Your task to perform on an android device: toggle pop-ups in chrome Image 0: 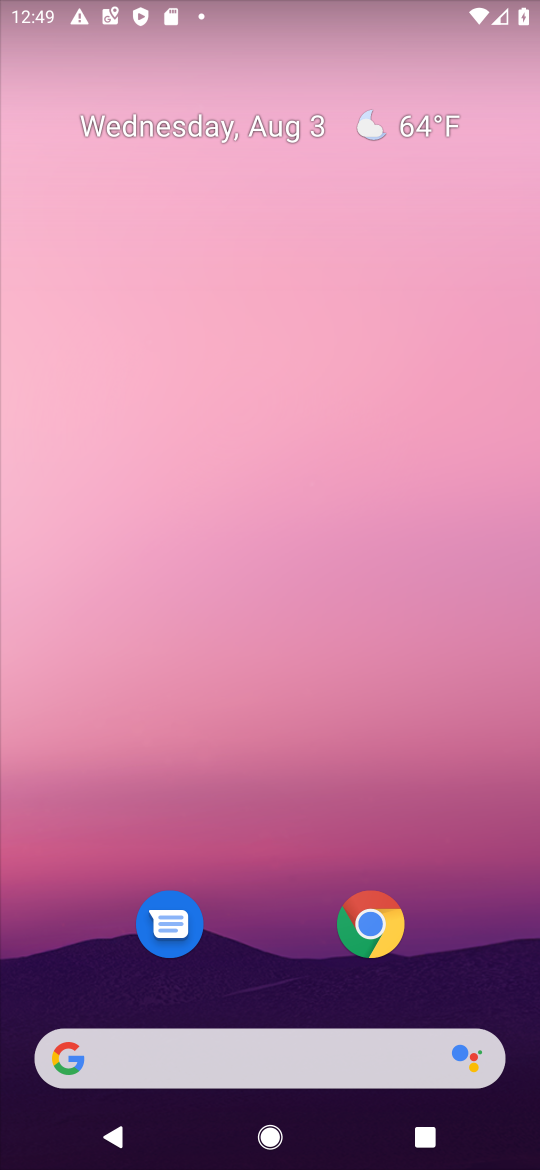
Step 0: click (388, 936)
Your task to perform on an android device: toggle pop-ups in chrome Image 1: 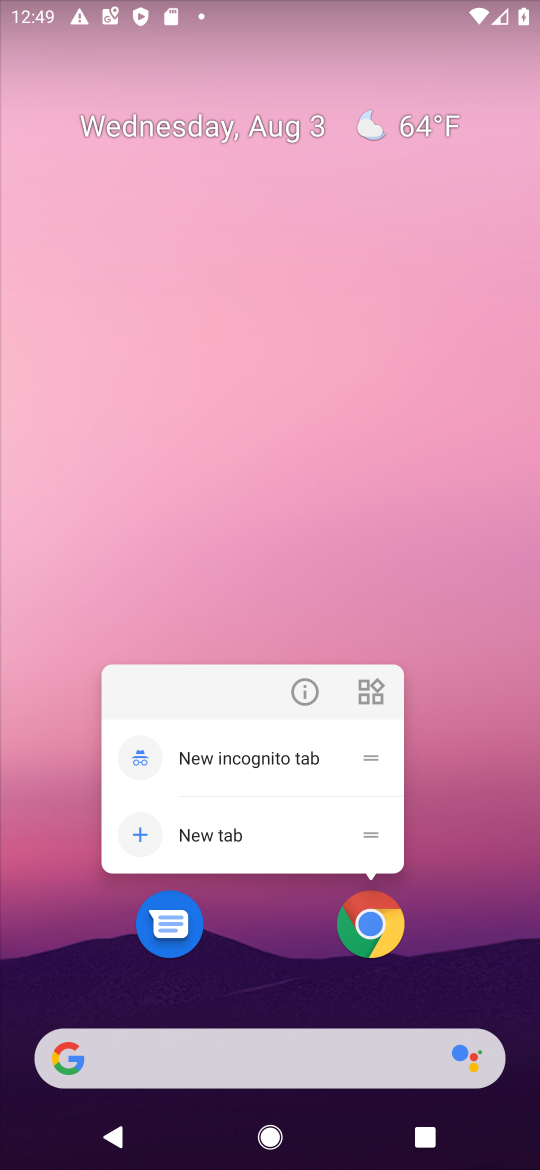
Step 1: click (390, 934)
Your task to perform on an android device: toggle pop-ups in chrome Image 2: 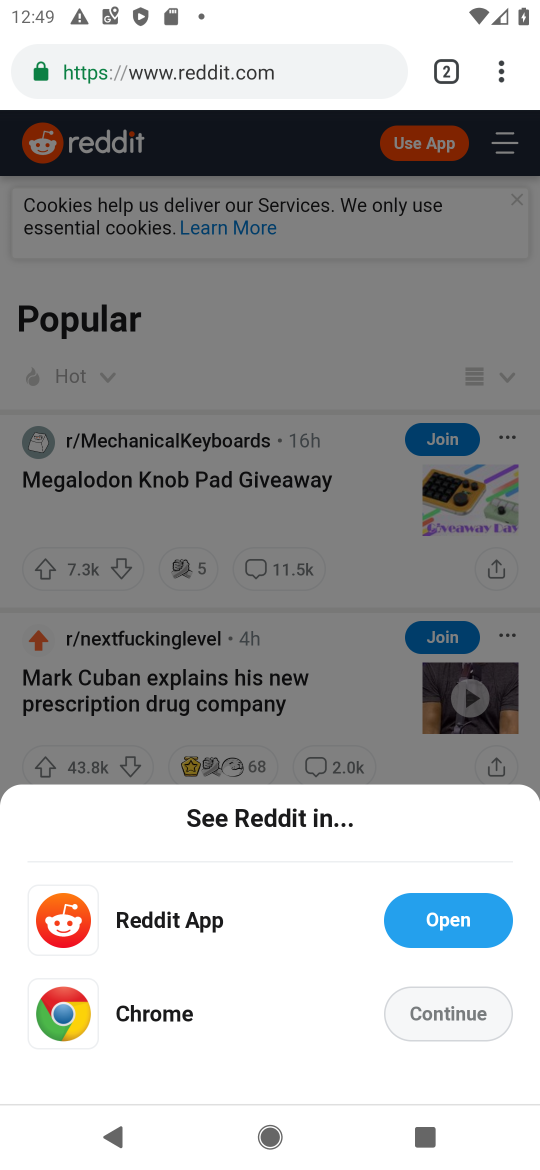
Step 2: drag from (508, 67) to (269, 862)
Your task to perform on an android device: toggle pop-ups in chrome Image 3: 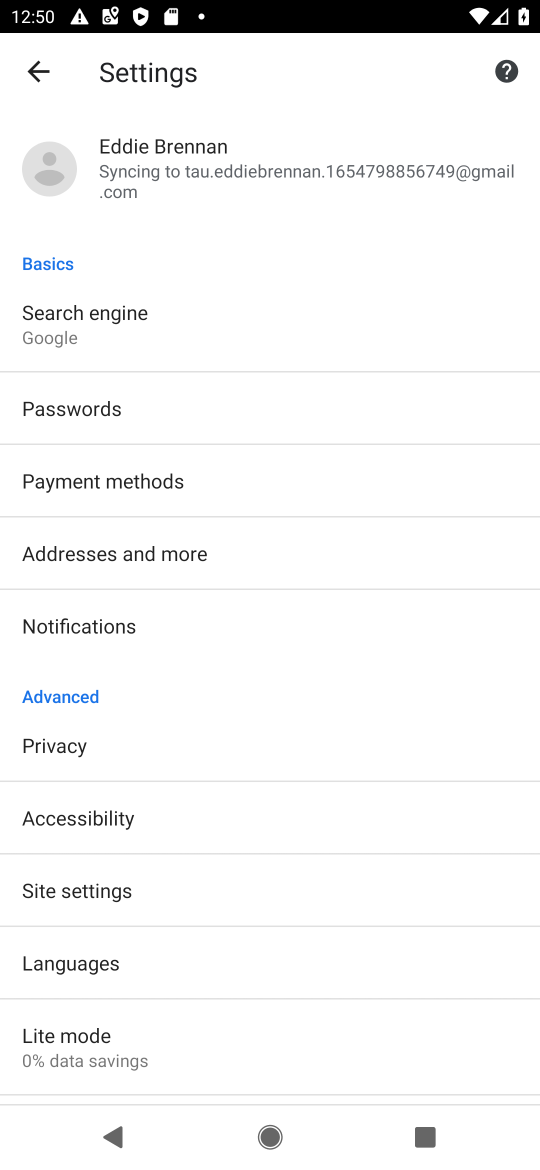
Step 3: click (42, 887)
Your task to perform on an android device: toggle pop-ups in chrome Image 4: 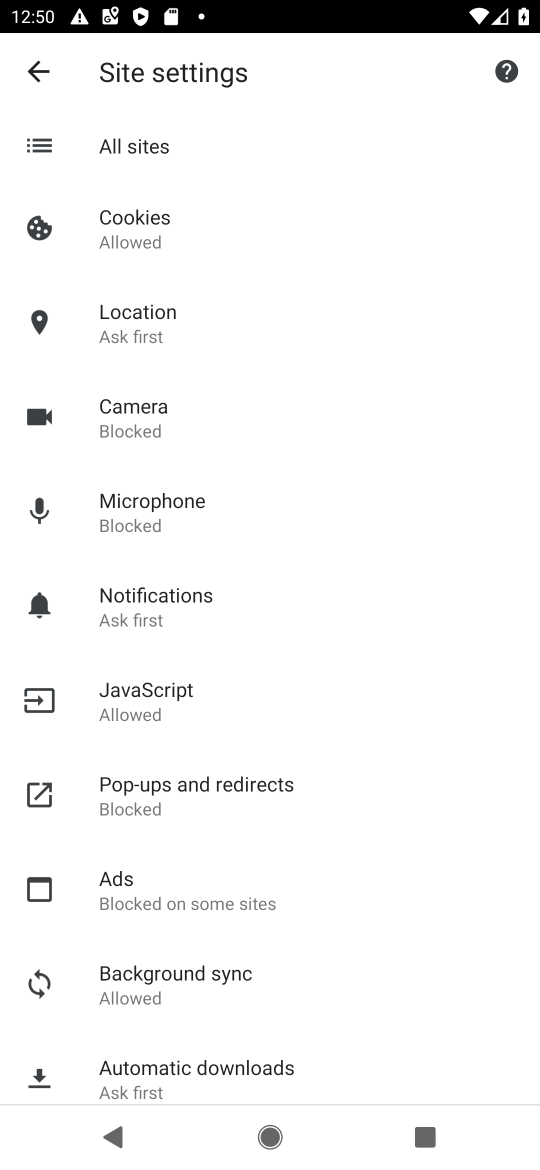
Step 4: click (107, 812)
Your task to perform on an android device: toggle pop-ups in chrome Image 5: 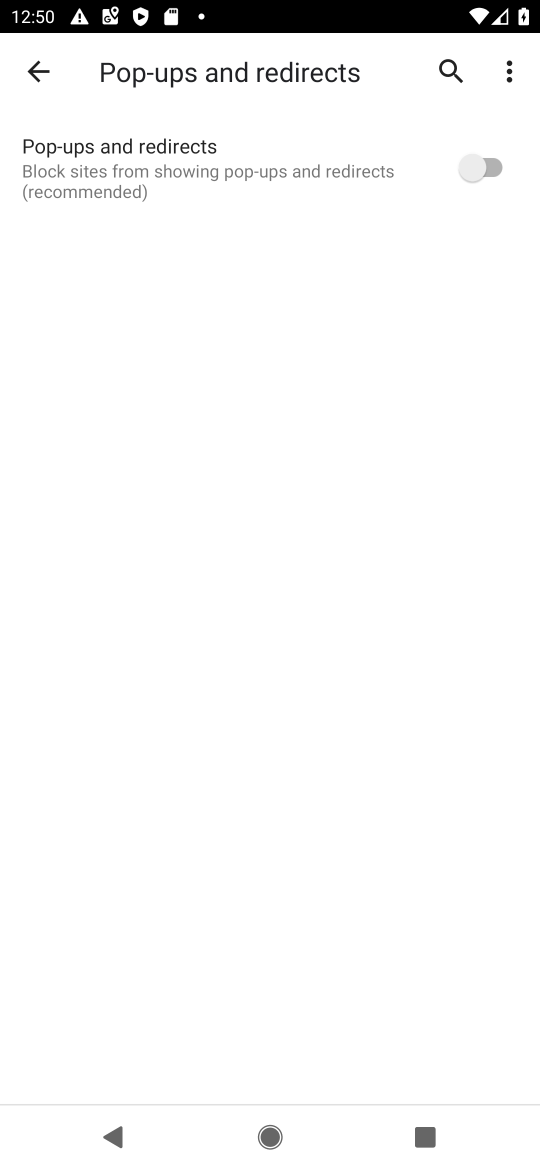
Step 5: click (481, 163)
Your task to perform on an android device: toggle pop-ups in chrome Image 6: 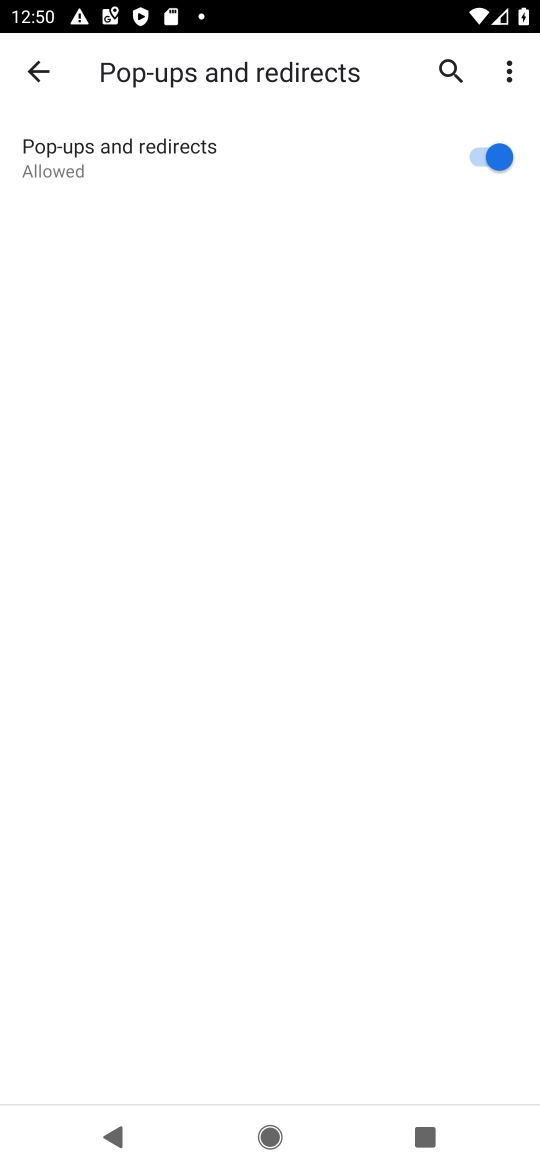
Step 6: task complete